Your task to perform on an android device: turn on translation in the chrome app Image 0: 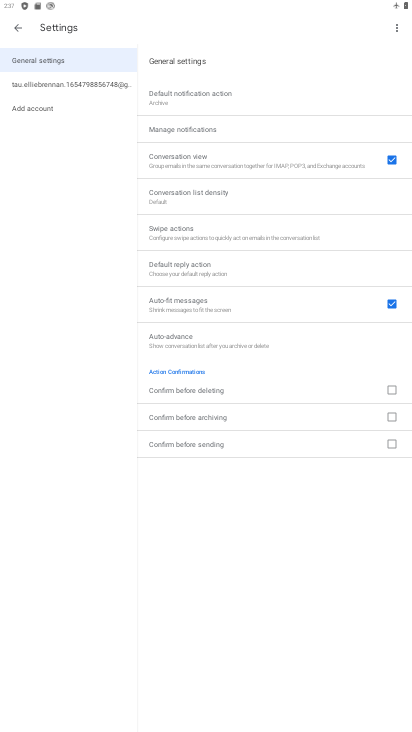
Step 0: press home button
Your task to perform on an android device: turn on translation in the chrome app Image 1: 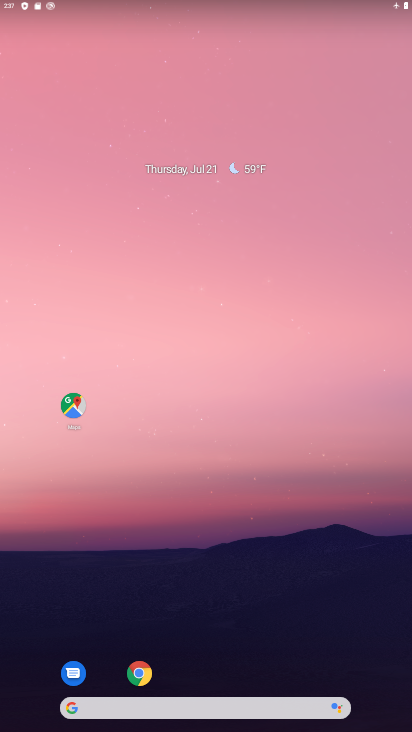
Step 1: click (141, 672)
Your task to perform on an android device: turn on translation in the chrome app Image 2: 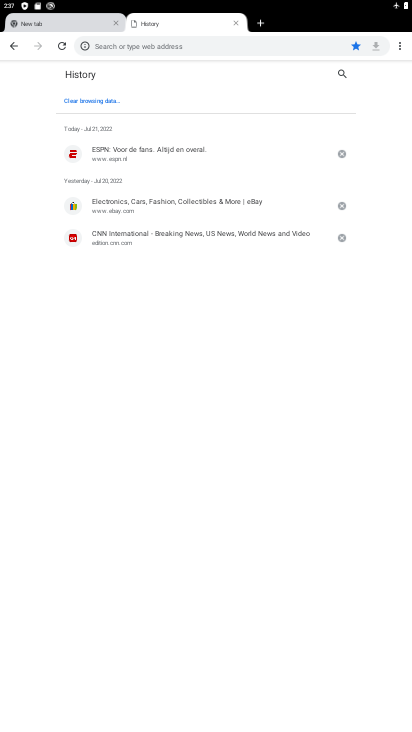
Step 2: click (402, 50)
Your task to perform on an android device: turn on translation in the chrome app Image 3: 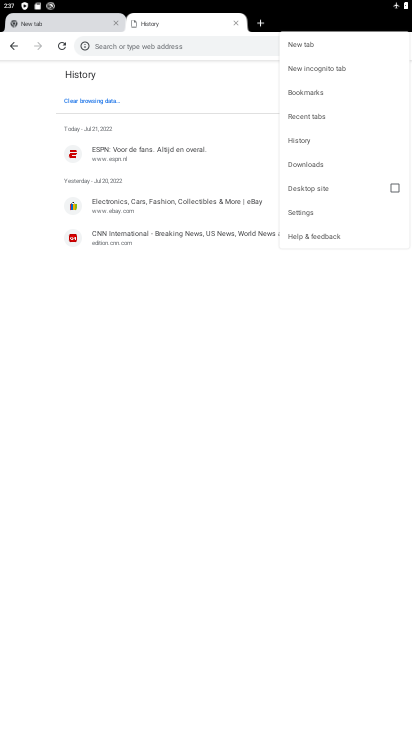
Step 3: click (300, 207)
Your task to perform on an android device: turn on translation in the chrome app Image 4: 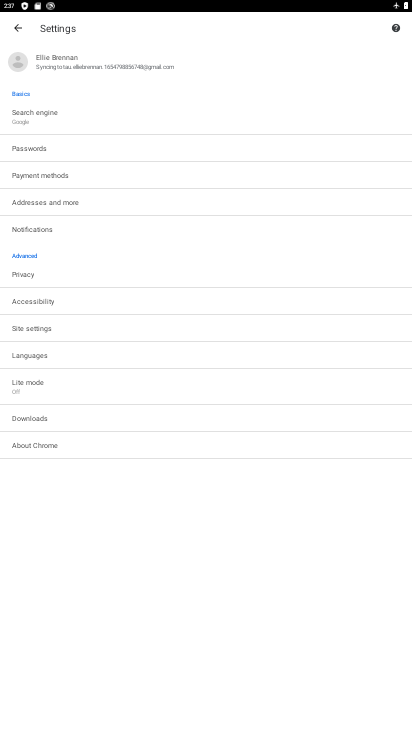
Step 4: click (17, 357)
Your task to perform on an android device: turn on translation in the chrome app Image 5: 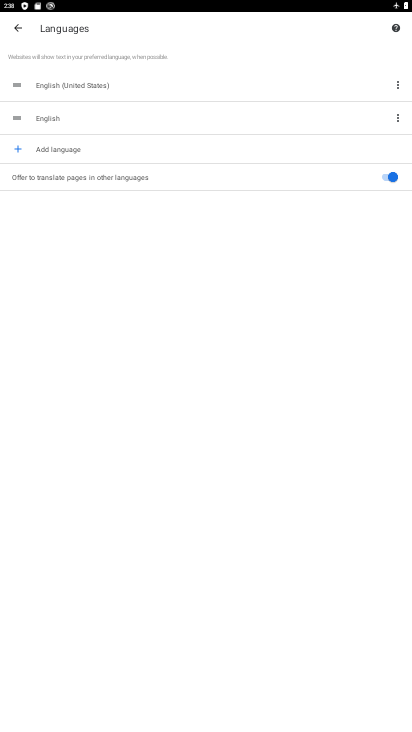
Step 5: task complete